Your task to perform on an android device: What's the weather? Image 0: 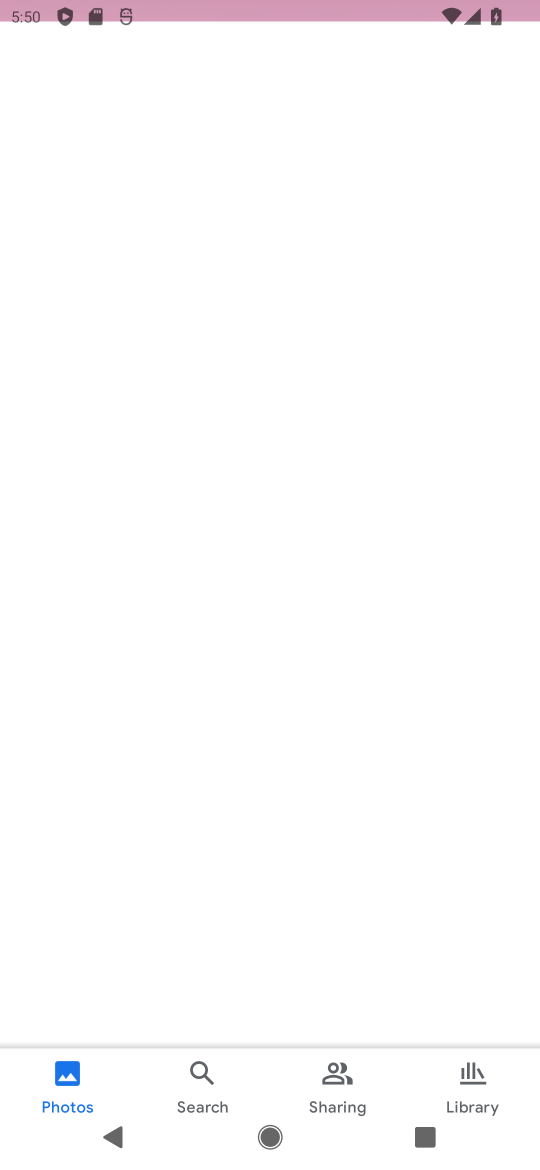
Step 0: press home button
Your task to perform on an android device: What's the weather? Image 1: 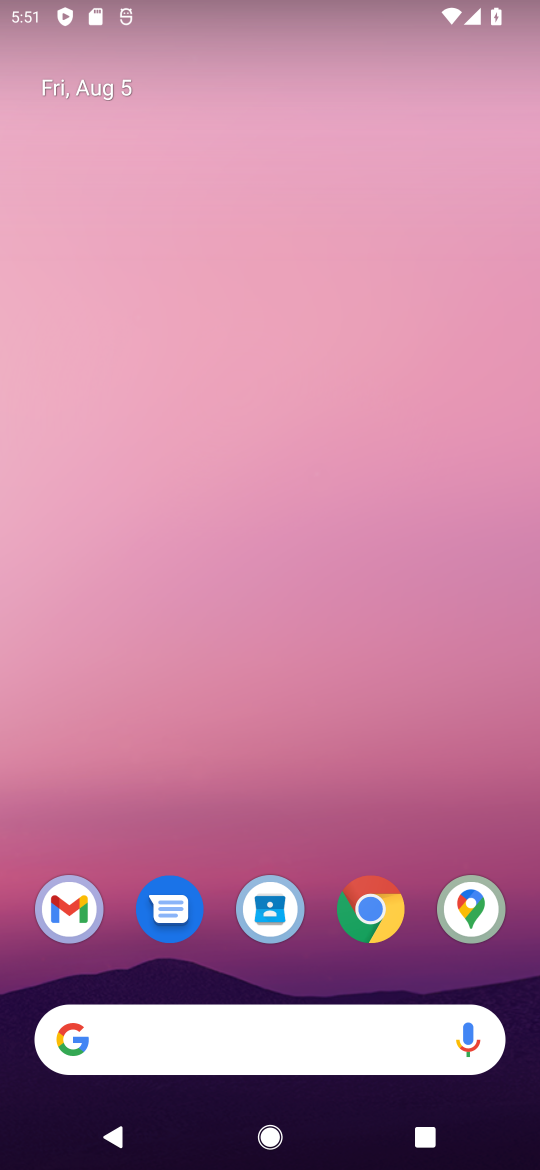
Step 1: drag from (249, 992) to (149, 314)
Your task to perform on an android device: What's the weather? Image 2: 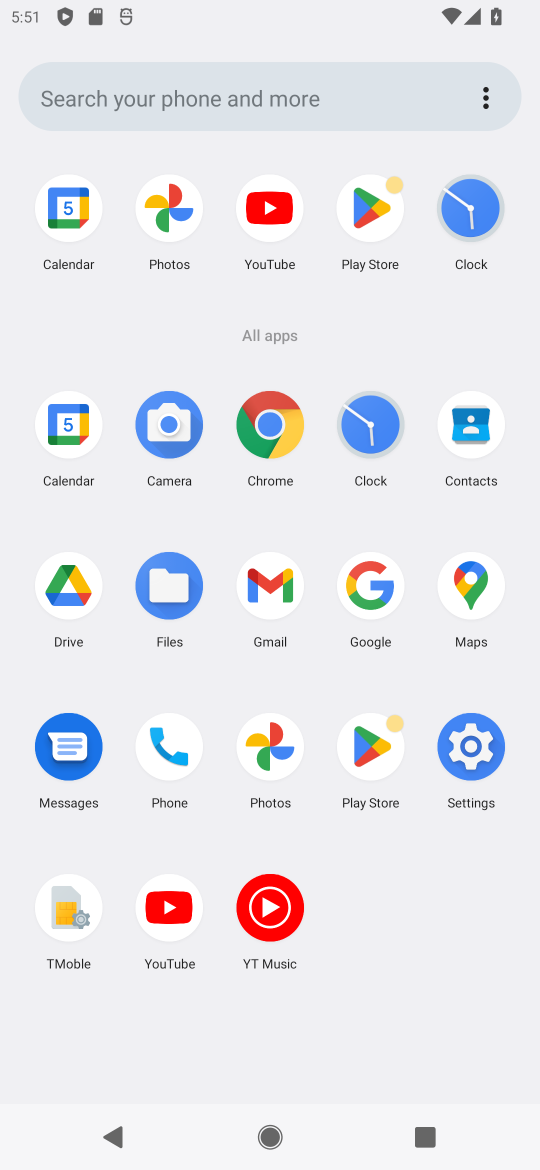
Step 2: click (377, 588)
Your task to perform on an android device: What's the weather? Image 3: 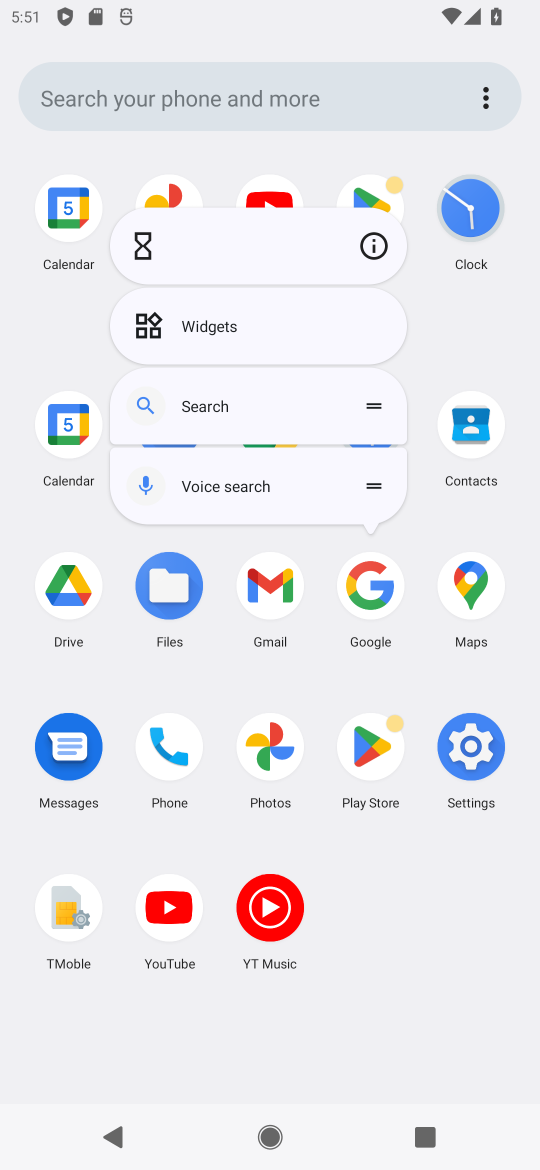
Step 3: click (377, 588)
Your task to perform on an android device: What's the weather? Image 4: 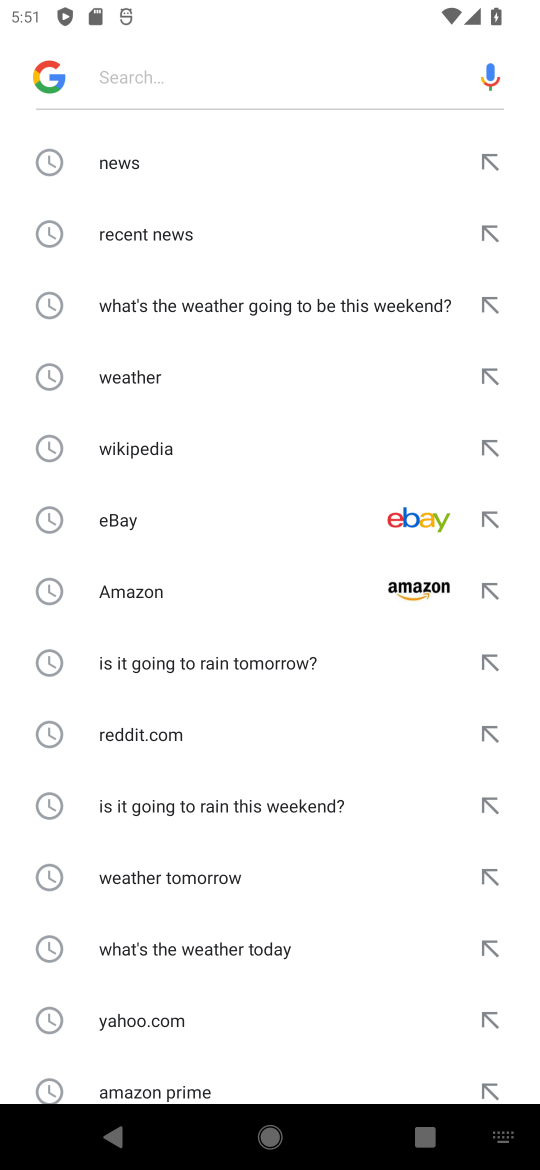
Step 4: click (142, 380)
Your task to perform on an android device: What's the weather? Image 5: 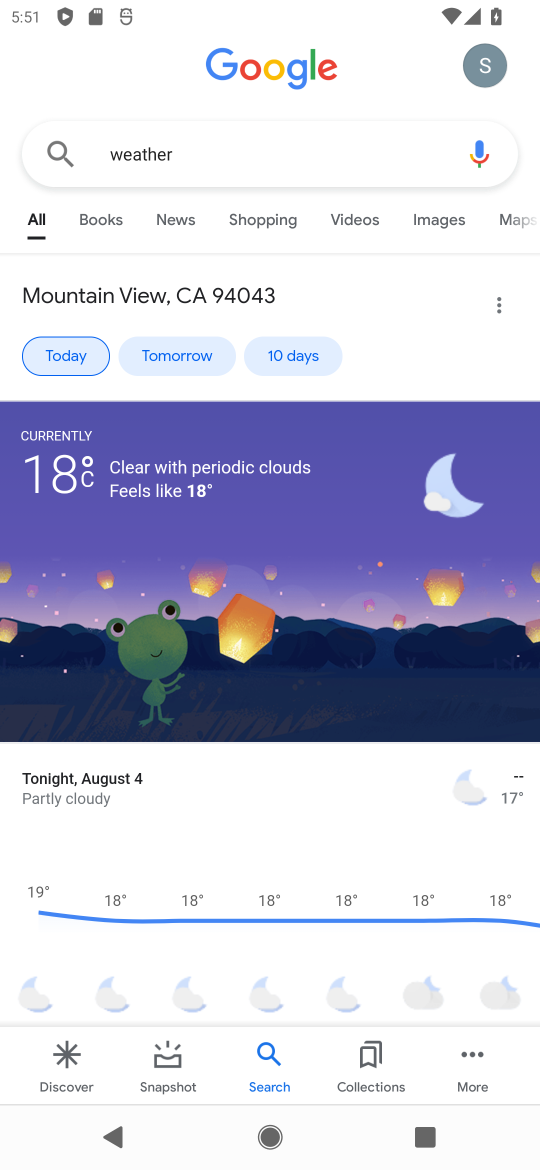
Step 5: task complete